Your task to perform on an android device: Open Maps and search for coffee Image 0: 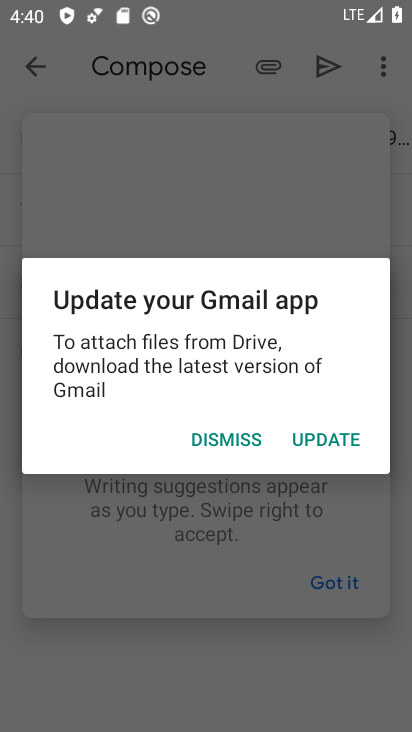
Step 0: press home button
Your task to perform on an android device: Open Maps and search for coffee Image 1: 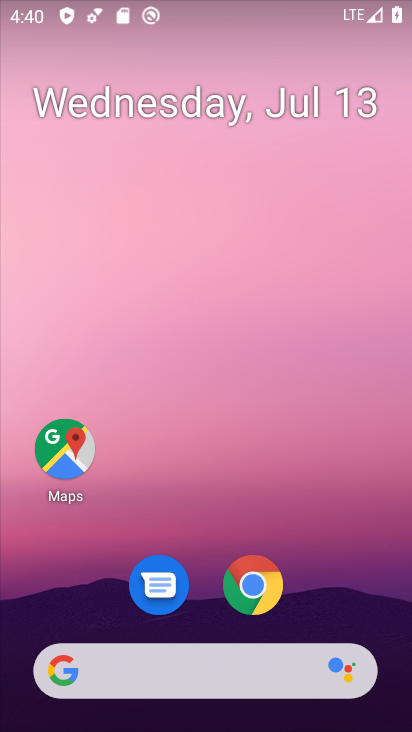
Step 1: click (64, 471)
Your task to perform on an android device: Open Maps and search for coffee Image 2: 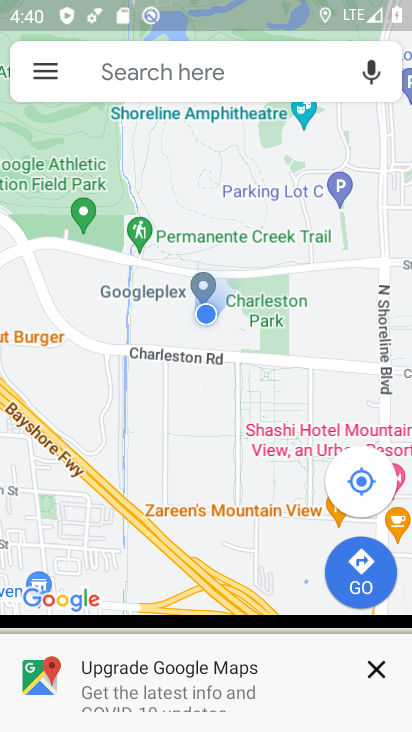
Step 2: click (231, 58)
Your task to perform on an android device: Open Maps and search for coffee Image 3: 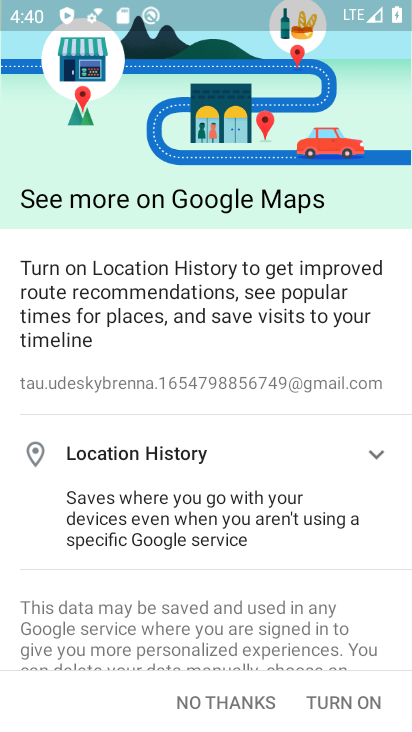
Step 3: click (351, 700)
Your task to perform on an android device: Open Maps and search for coffee Image 4: 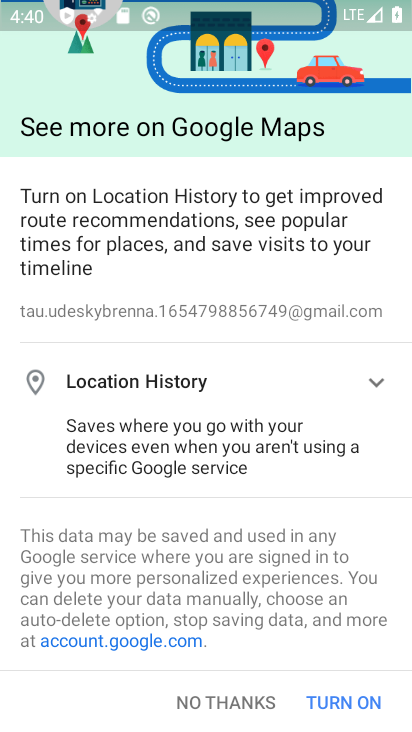
Step 4: click (351, 700)
Your task to perform on an android device: Open Maps and search for coffee Image 5: 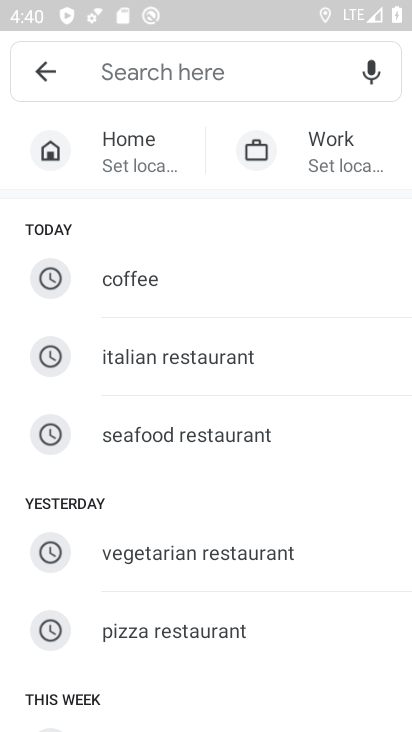
Step 5: click (153, 285)
Your task to perform on an android device: Open Maps and search for coffee Image 6: 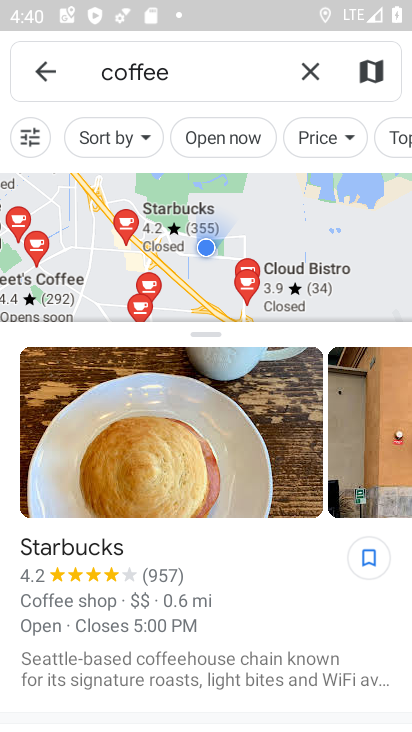
Step 6: task complete